Your task to perform on an android device: create a new album in the google photos Image 0: 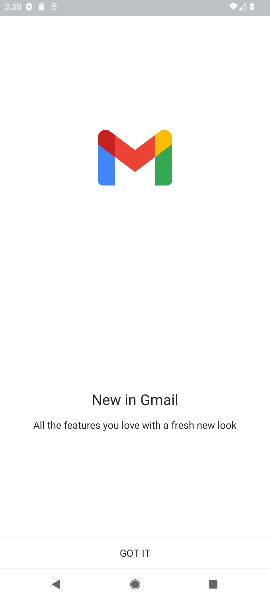
Step 0: press home button
Your task to perform on an android device: create a new album in the google photos Image 1: 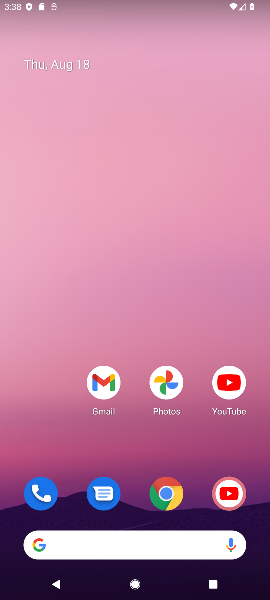
Step 1: click (162, 385)
Your task to perform on an android device: create a new album in the google photos Image 2: 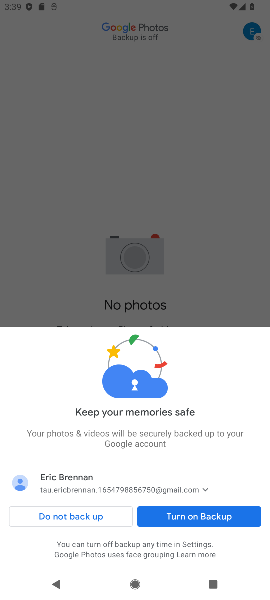
Step 2: click (104, 516)
Your task to perform on an android device: create a new album in the google photos Image 3: 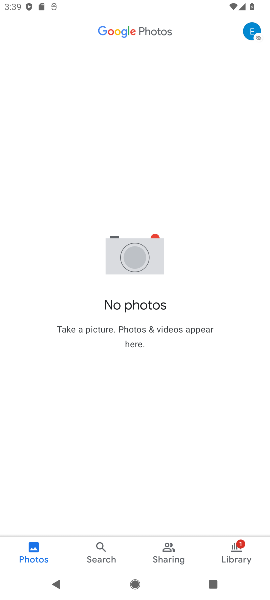
Step 3: task complete